Your task to perform on an android device: snooze an email in the gmail app Image 0: 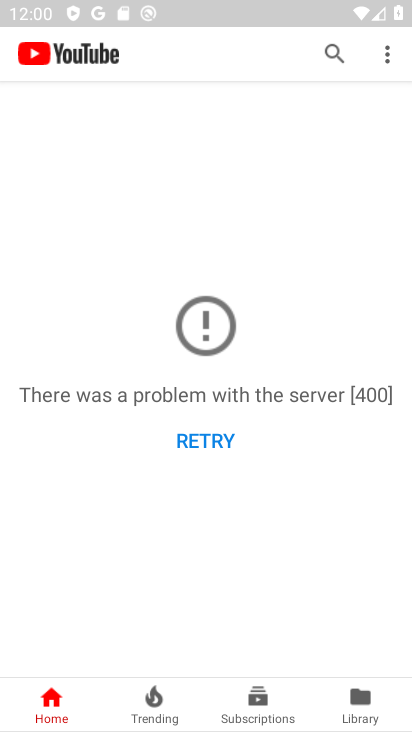
Step 0: press home button
Your task to perform on an android device: snooze an email in the gmail app Image 1: 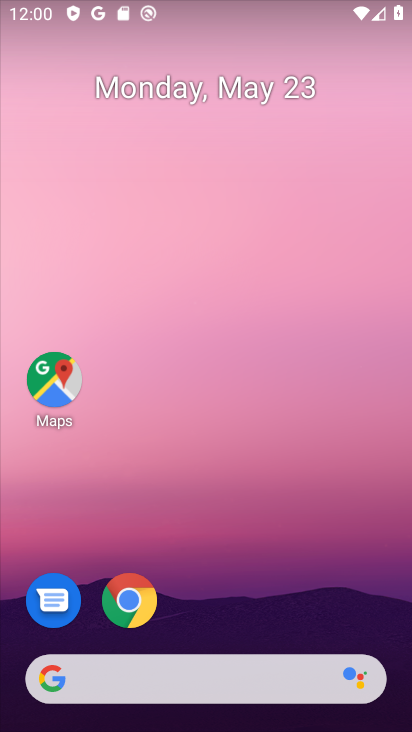
Step 1: drag from (232, 539) to (229, 0)
Your task to perform on an android device: snooze an email in the gmail app Image 2: 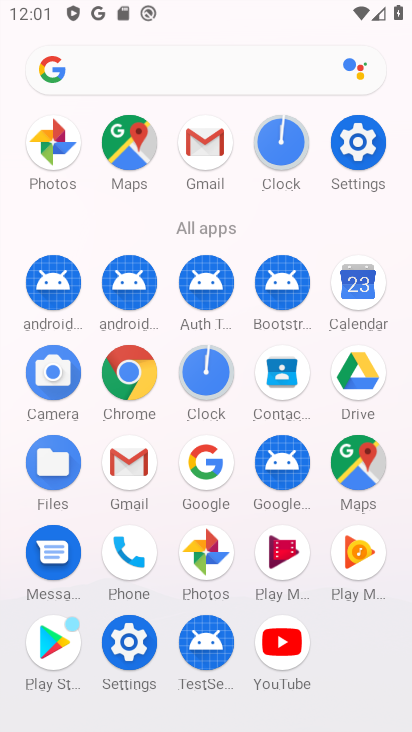
Step 2: click (215, 123)
Your task to perform on an android device: snooze an email in the gmail app Image 3: 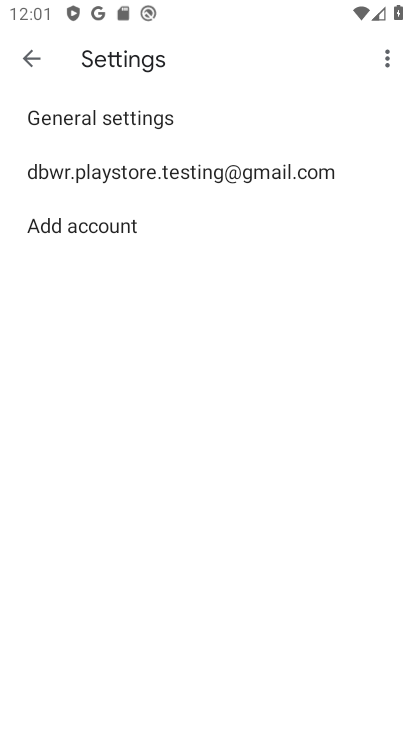
Step 3: click (229, 174)
Your task to perform on an android device: snooze an email in the gmail app Image 4: 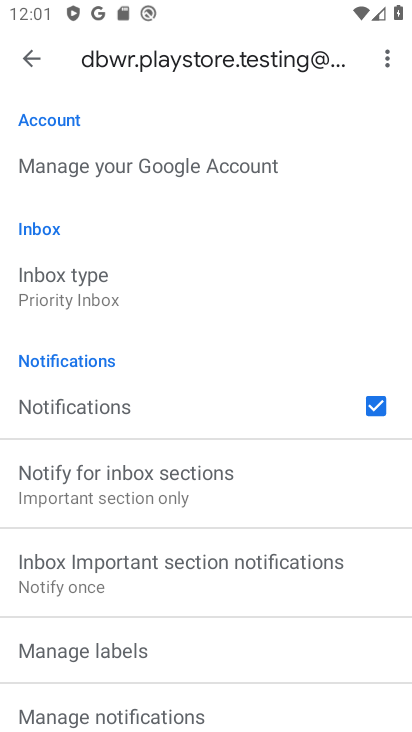
Step 4: click (41, 51)
Your task to perform on an android device: snooze an email in the gmail app Image 5: 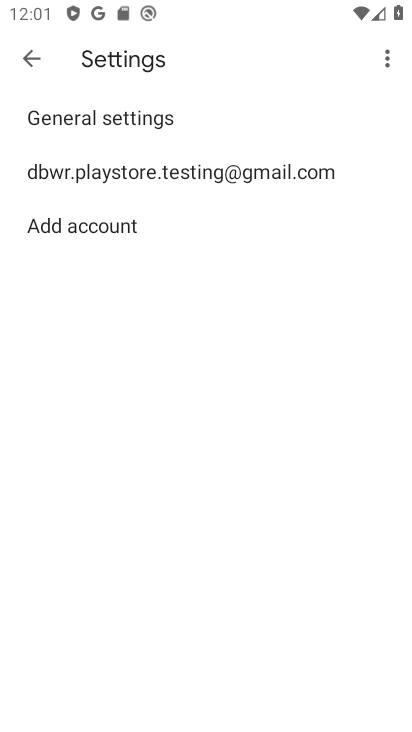
Step 5: click (41, 51)
Your task to perform on an android device: snooze an email in the gmail app Image 6: 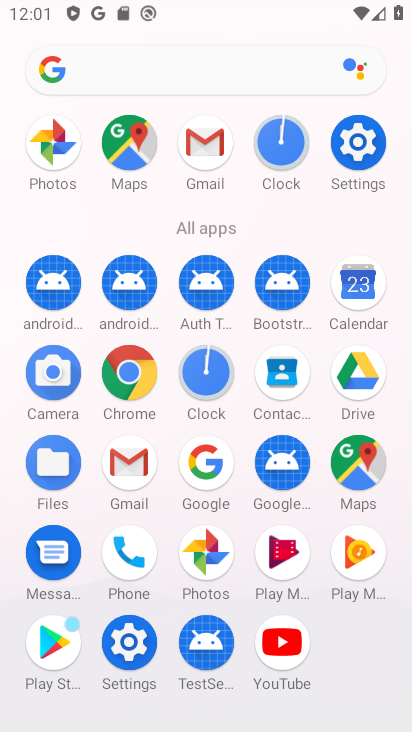
Step 6: click (203, 151)
Your task to perform on an android device: snooze an email in the gmail app Image 7: 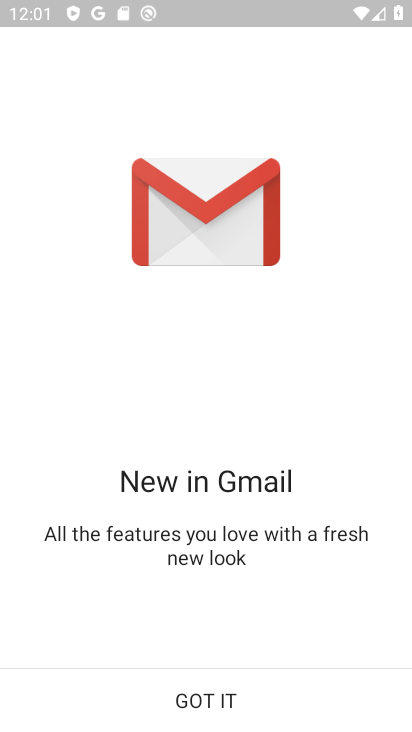
Step 7: click (209, 705)
Your task to perform on an android device: snooze an email in the gmail app Image 8: 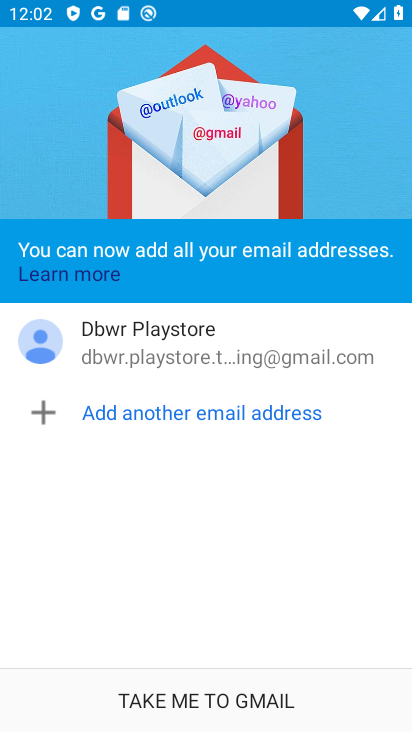
Step 8: click (210, 706)
Your task to perform on an android device: snooze an email in the gmail app Image 9: 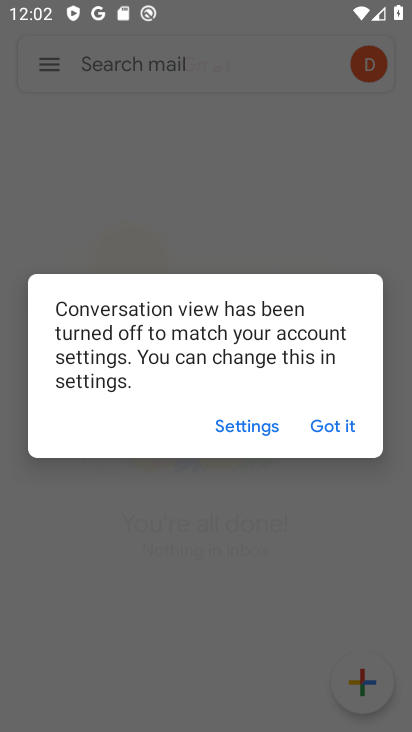
Step 9: click (341, 434)
Your task to perform on an android device: snooze an email in the gmail app Image 10: 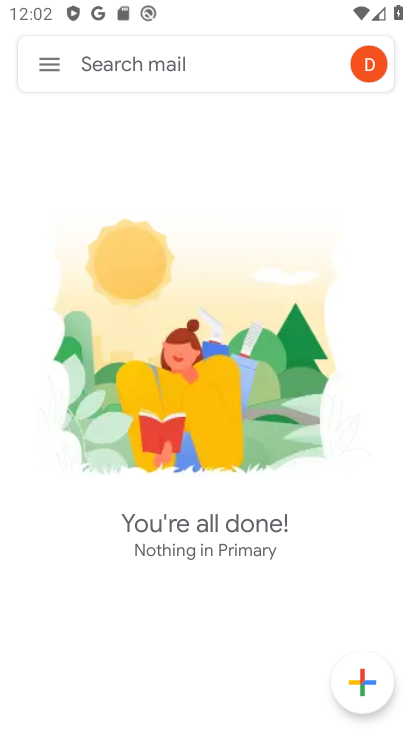
Step 10: click (43, 74)
Your task to perform on an android device: snooze an email in the gmail app Image 11: 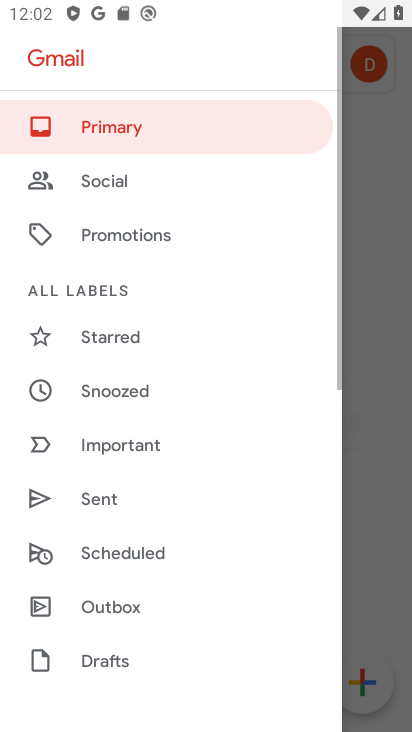
Step 11: drag from (178, 619) to (159, 205)
Your task to perform on an android device: snooze an email in the gmail app Image 12: 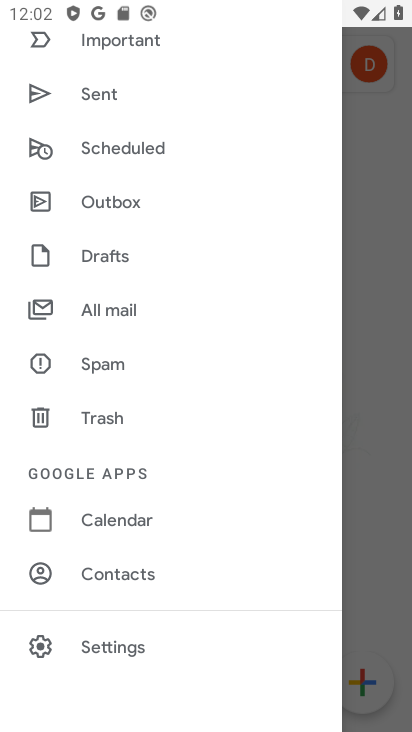
Step 12: drag from (203, 622) to (146, 200)
Your task to perform on an android device: snooze an email in the gmail app Image 13: 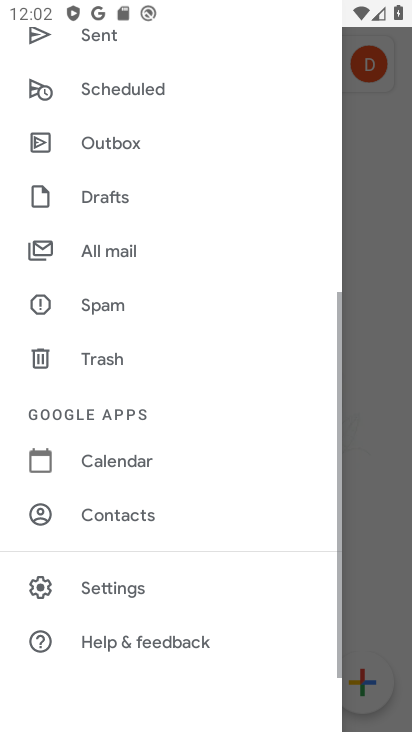
Step 13: click (128, 245)
Your task to perform on an android device: snooze an email in the gmail app Image 14: 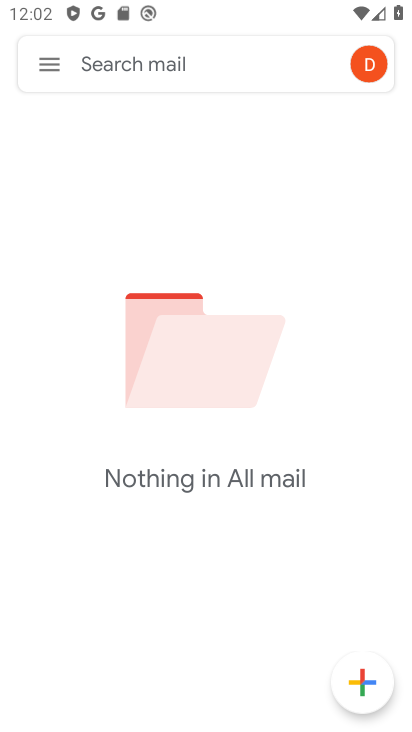
Step 14: task complete